Your task to perform on an android device: turn on improve location accuracy Image 0: 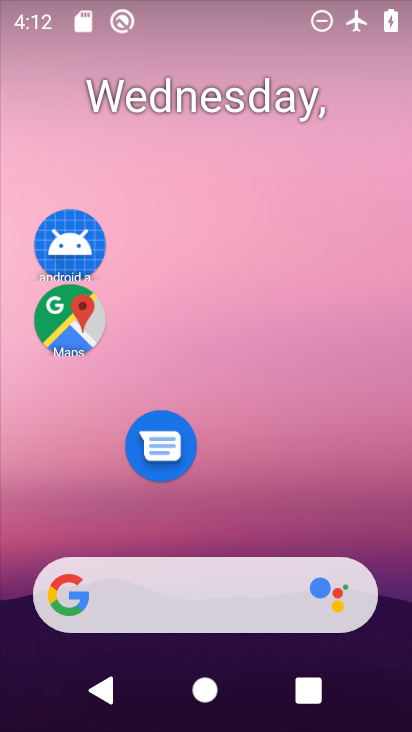
Step 0: drag from (262, 508) to (253, 172)
Your task to perform on an android device: turn on improve location accuracy Image 1: 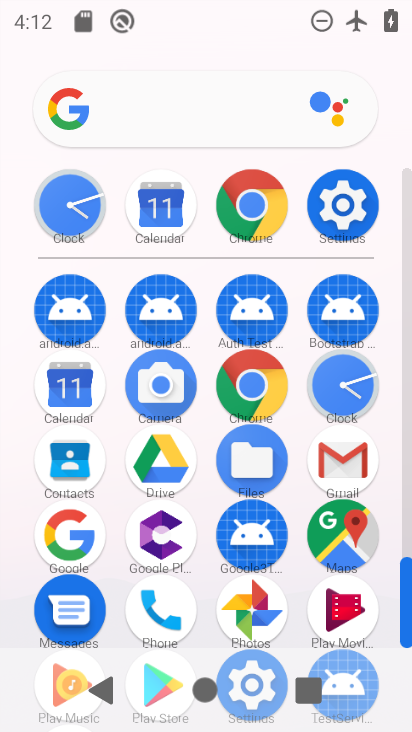
Step 1: click (324, 225)
Your task to perform on an android device: turn on improve location accuracy Image 2: 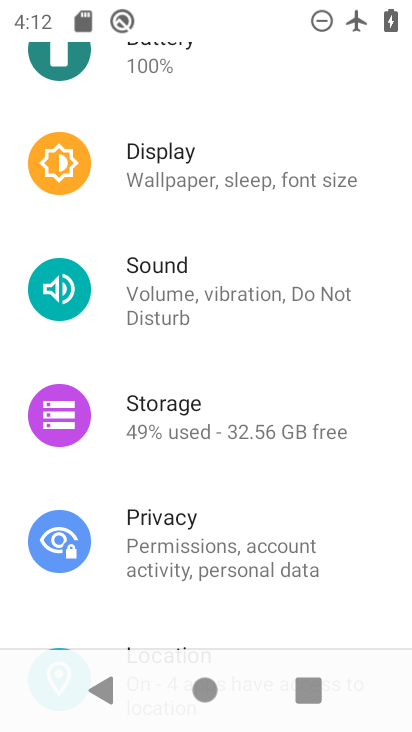
Step 2: drag from (288, 554) to (297, 158)
Your task to perform on an android device: turn on improve location accuracy Image 3: 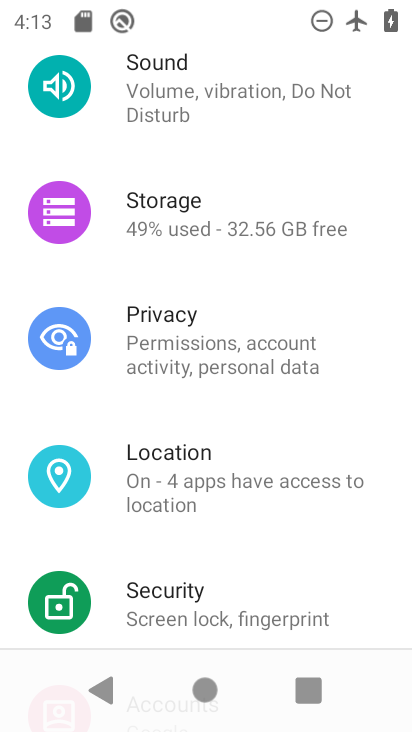
Step 3: click (236, 488)
Your task to perform on an android device: turn on improve location accuracy Image 4: 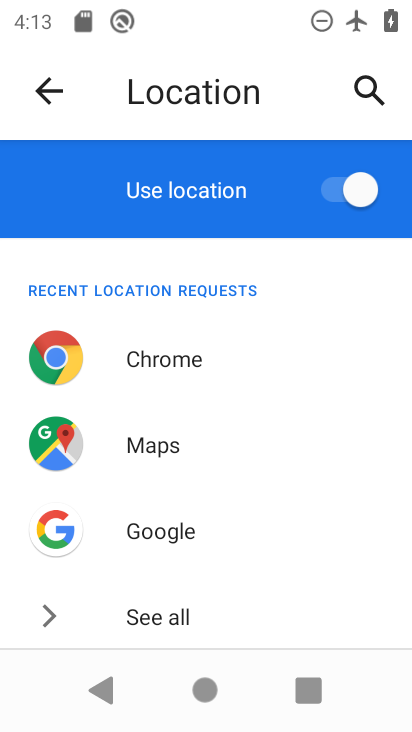
Step 4: drag from (236, 488) to (261, 203)
Your task to perform on an android device: turn on improve location accuracy Image 5: 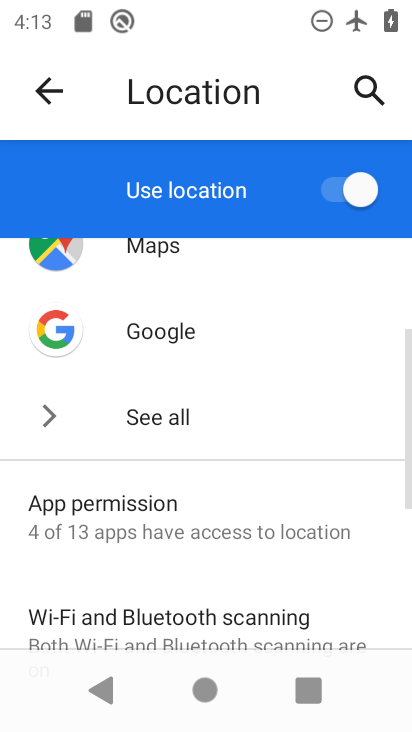
Step 5: drag from (250, 480) to (275, 290)
Your task to perform on an android device: turn on improve location accuracy Image 6: 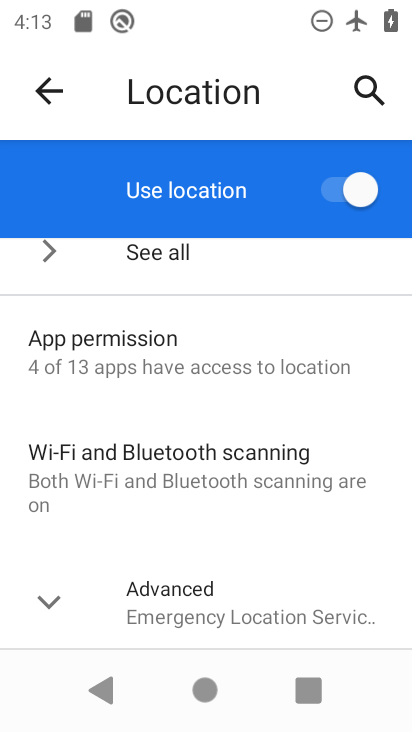
Step 6: click (239, 632)
Your task to perform on an android device: turn on improve location accuracy Image 7: 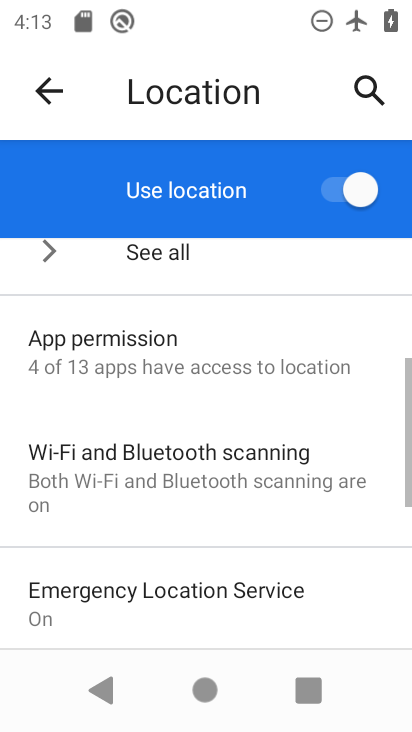
Step 7: drag from (263, 563) to (286, 269)
Your task to perform on an android device: turn on improve location accuracy Image 8: 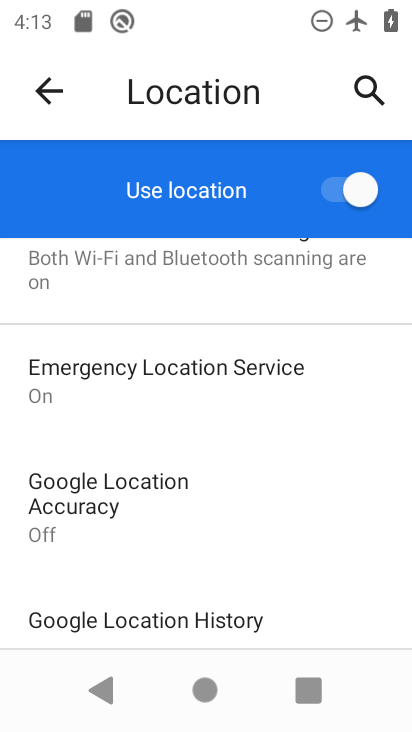
Step 8: drag from (252, 577) to (265, 328)
Your task to perform on an android device: turn on improve location accuracy Image 9: 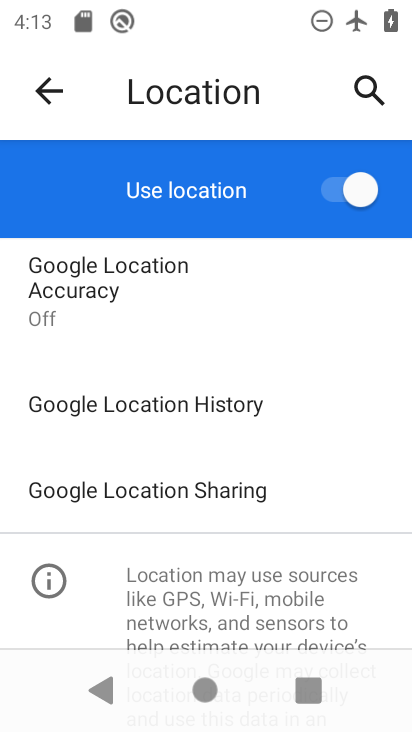
Step 9: click (264, 320)
Your task to perform on an android device: turn on improve location accuracy Image 10: 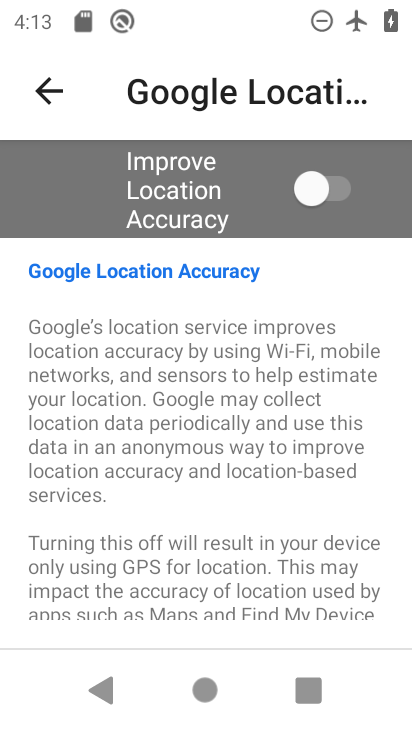
Step 10: click (300, 174)
Your task to perform on an android device: turn on improve location accuracy Image 11: 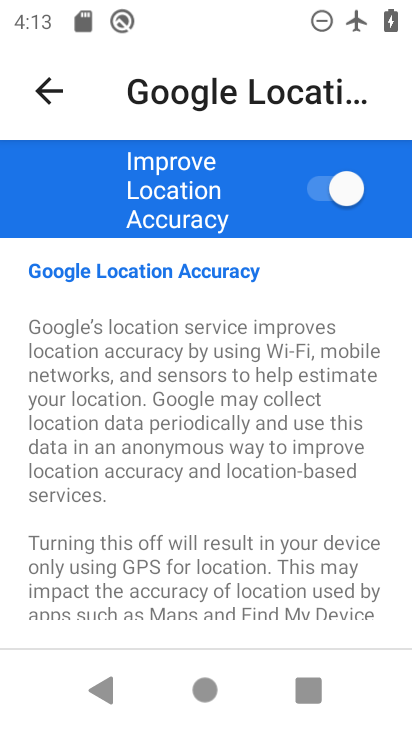
Step 11: task complete